Your task to perform on an android device: Search for the most popular books on Goodreads Image 0: 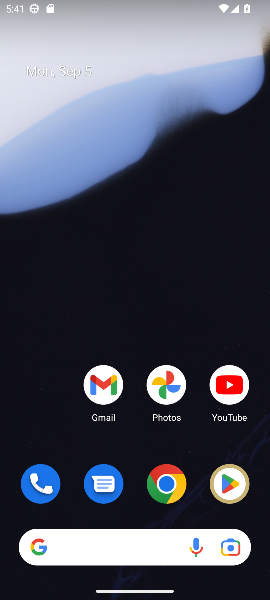
Step 0: click (162, 486)
Your task to perform on an android device: Search for the most popular books on Goodreads Image 1: 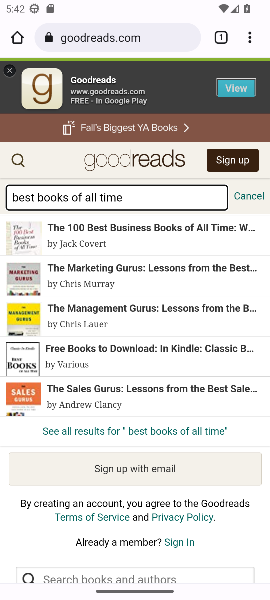
Step 1: click (15, 156)
Your task to perform on an android device: Search for the most popular books on Goodreads Image 2: 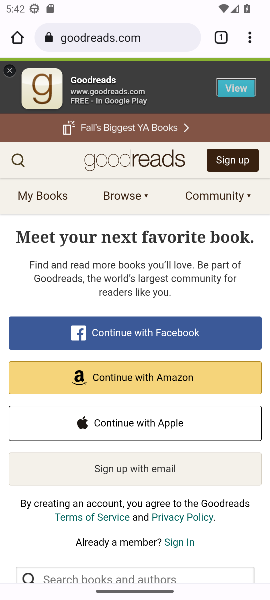
Step 2: click (15, 156)
Your task to perform on an android device: Search for the most popular books on Goodreads Image 3: 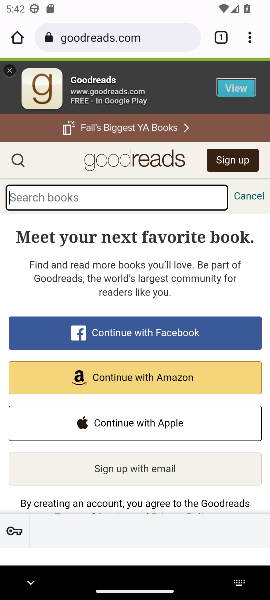
Step 3: press enter
Your task to perform on an android device: Search for the most popular books on Goodreads Image 4: 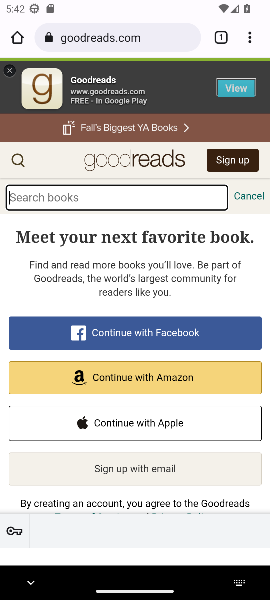
Step 4: type "most popular books "
Your task to perform on an android device: Search for the most popular books on Goodreads Image 5: 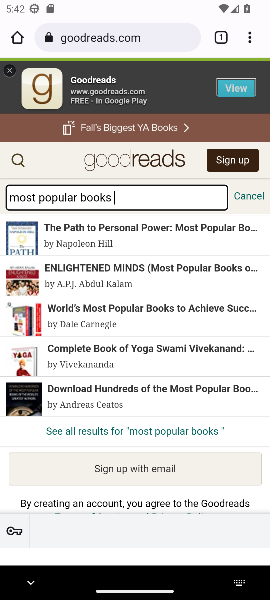
Step 5: drag from (170, 347) to (262, 209)
Your task to perform on an android device: Search for the most popular books on Goodreads Image 6: 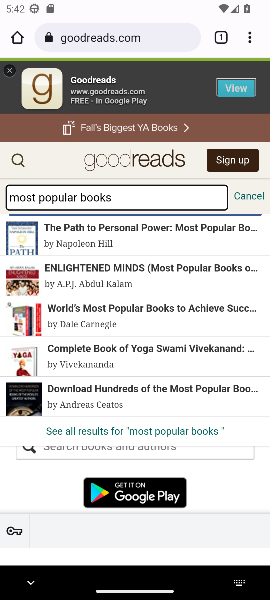
Step 6: drag from (60, 500) to (210, 237)
Your task to perform on an android device: Search for the most popular books on Goodreads Image 7: 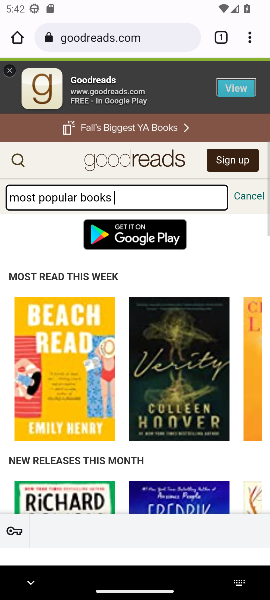
Step 7: drag from (174, 356) to (257, 283)
Your task to perform on an android device: Search for the most popular books on Goodreads Image 8: 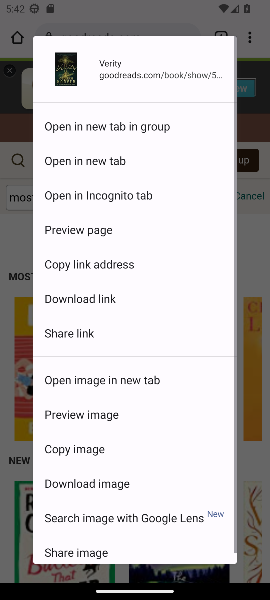
Step 8: click (270, 253)
Your task to perform on an android device: Search for the most popular books on Goodreads Image 9: 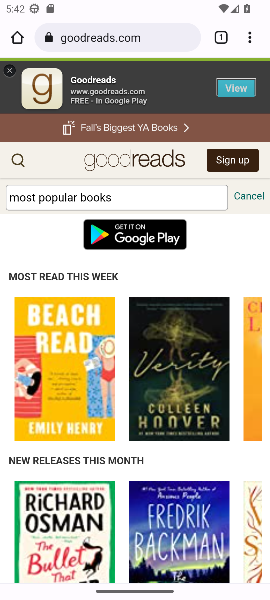
Step 9: task complete